Your task to perform on an android device: uninstall "Life360: Find Family & Friends" Image 0: 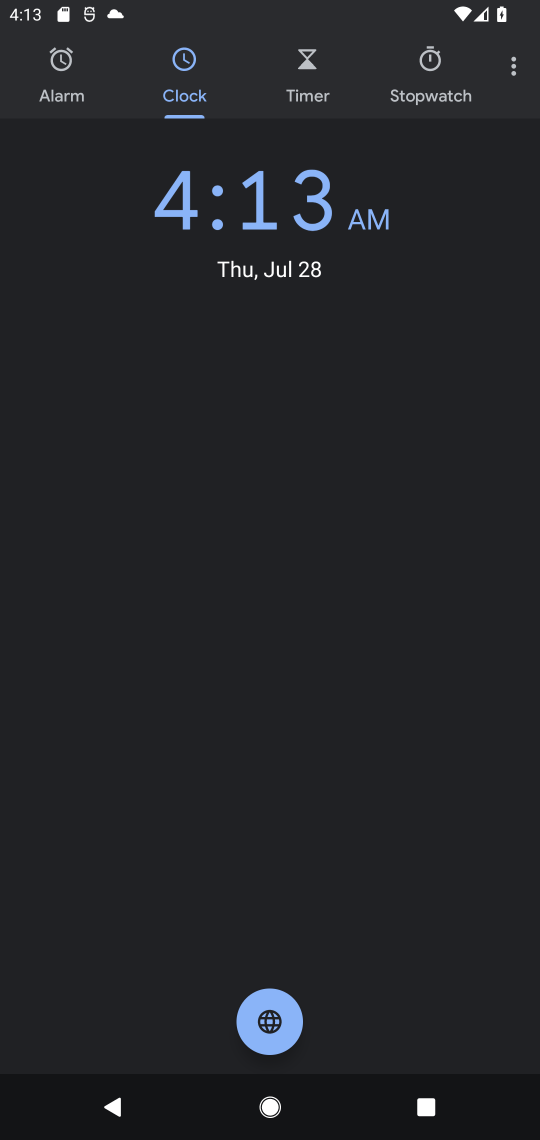
Step 0: press home button
Your task to perform on an android device: uninstall "Life360: Find Family & Friends" Image 1: 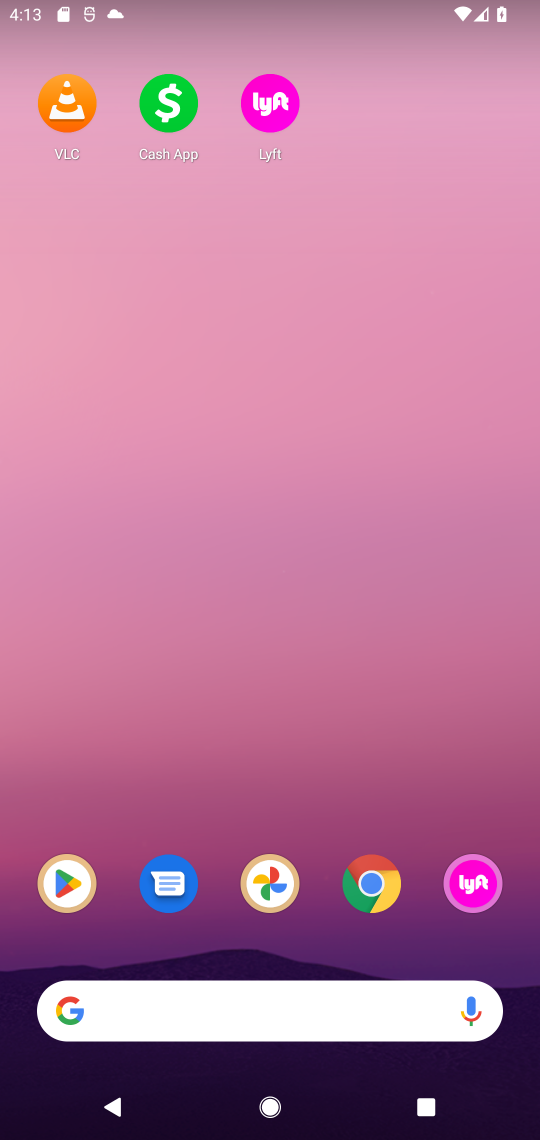
Step 1: drag from (294, 980) to (224, 180)
Your task to perform on an android device: uninstall "Life360: Find Family & Friends" Image 2: 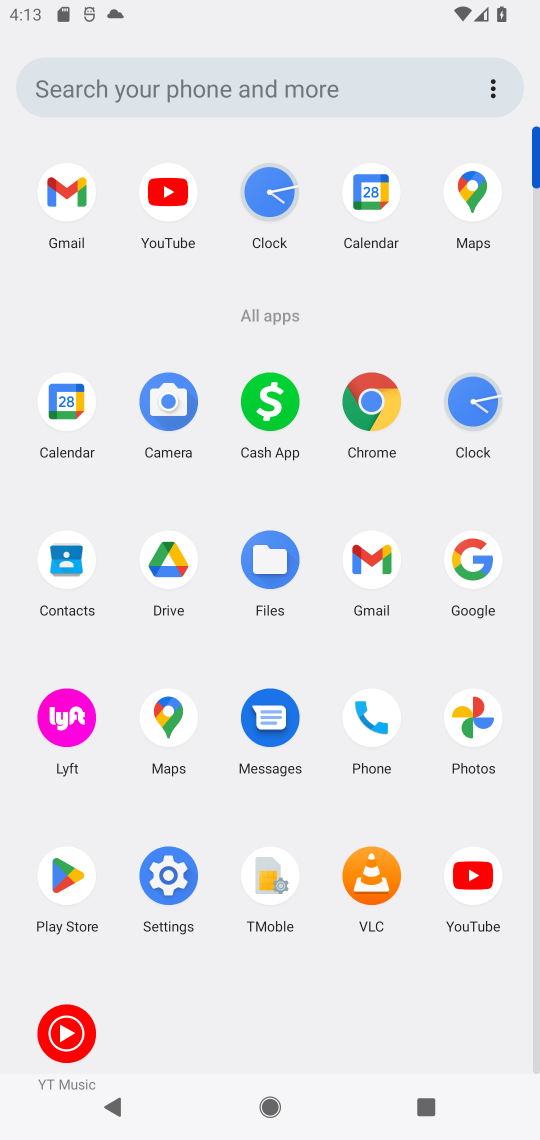
Step 2: click (40, 909)
Your task to perform on an android device: uninstall "Life360: Find Family & Friends" Image 3: 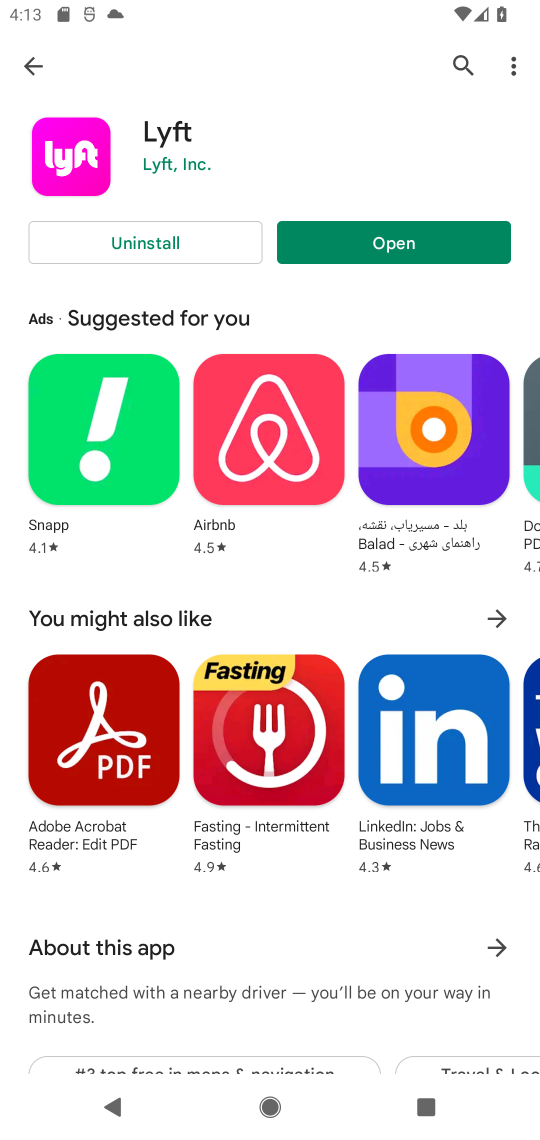
Step 3: click (34, 73)
Your task to perform on an android device: uninstall "Life360: Find Family & Friends" Image 4: 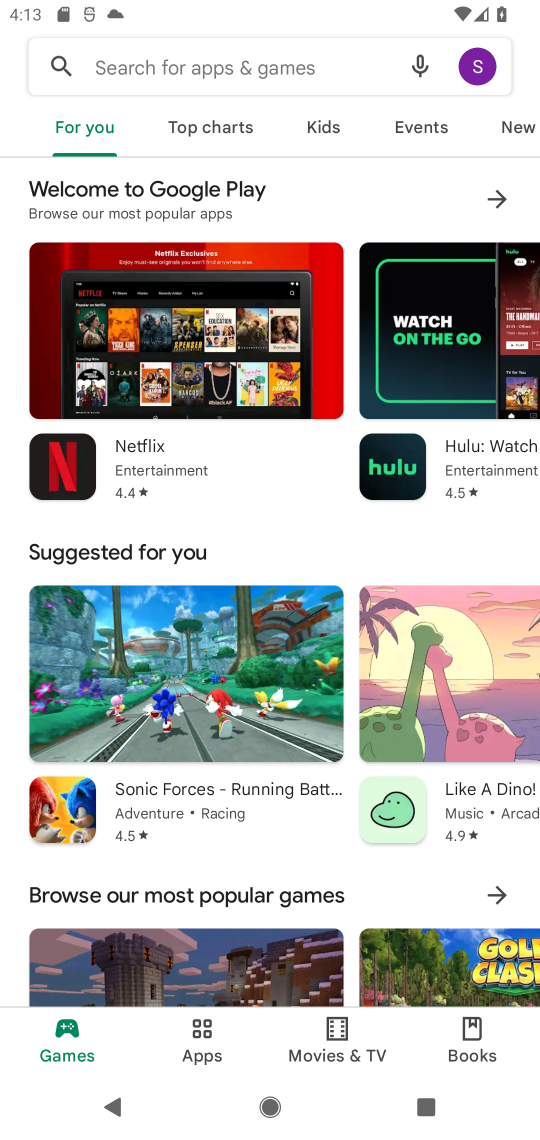
Step 4: click (242, 61)
Your task to perform on an android device: uninstall "Life360: Find Family & Friends" Image 5: 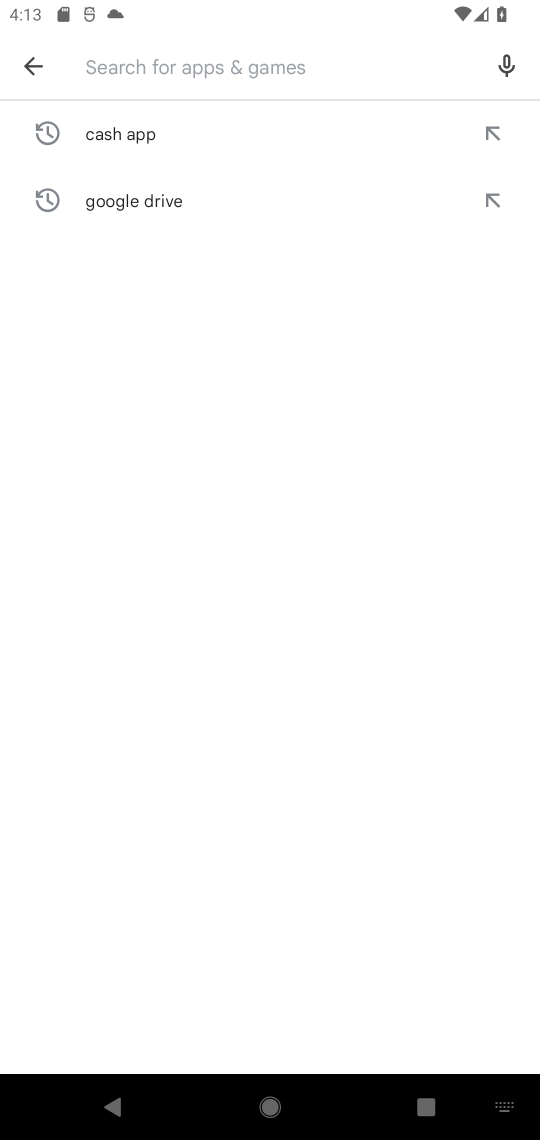
Step 5: type "Life360: Find Family & Friends"
Your task to perform on an android device: uninstall "Life360: Find Family & Friends" Image 6: 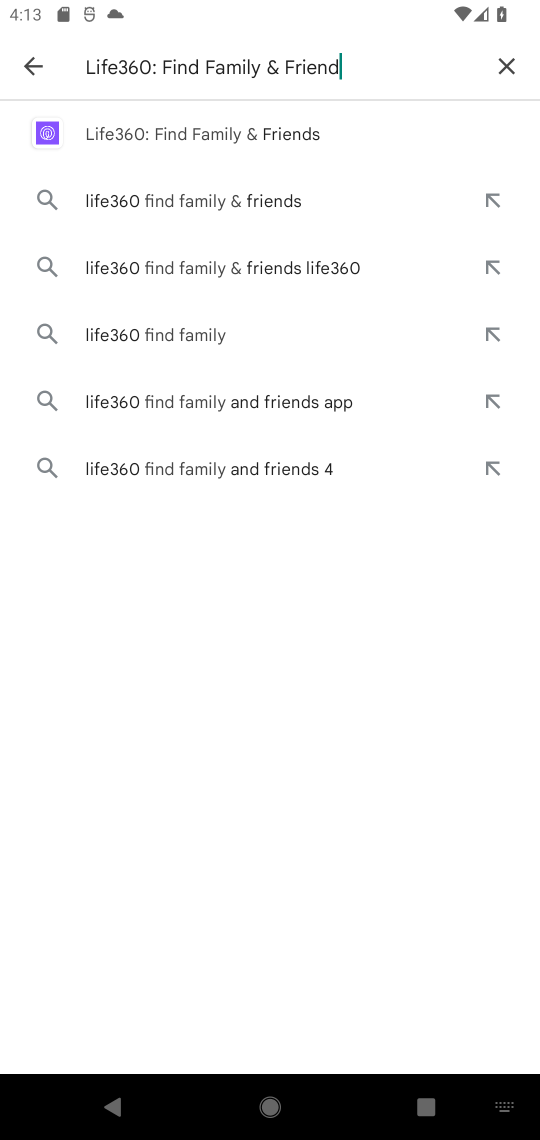
Step 6: type ""
Your task to perform on an android device: uninstall "Life360: Find Family & Friends" Image 7: 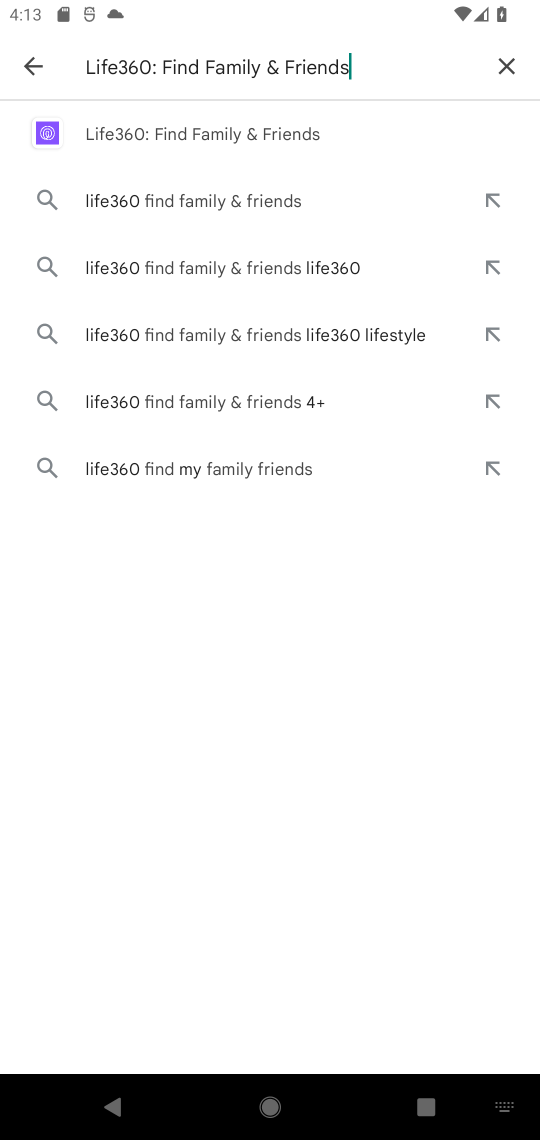
Step 7: click (130, 146)
Your task to perform on an android device: uninstall "Life360: Find Family & Friends" Image 8: 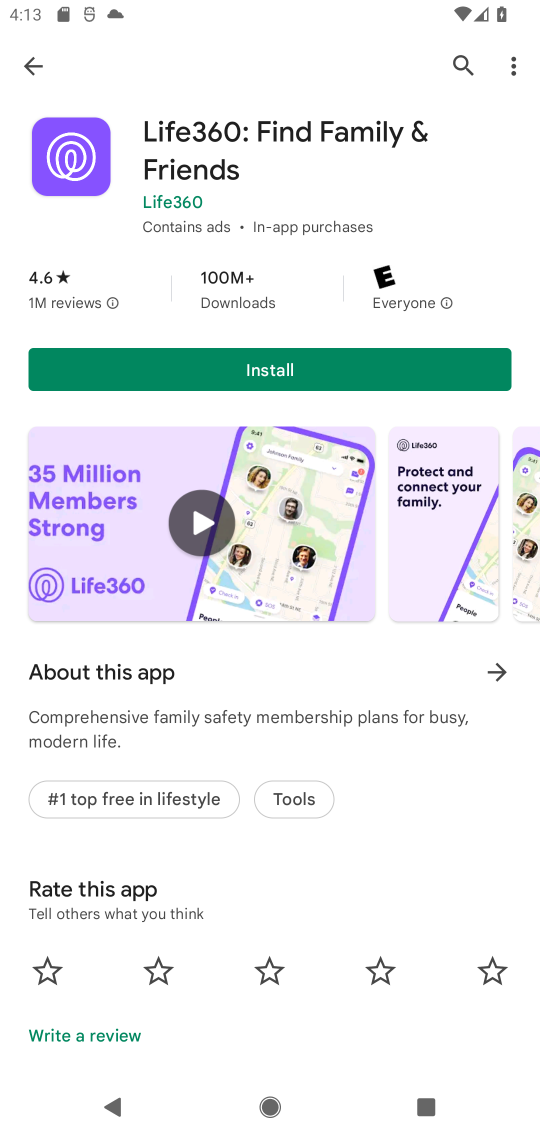
Step 8: task complete